Your task to perform on an android device: clear history in the chrome app Image 0: 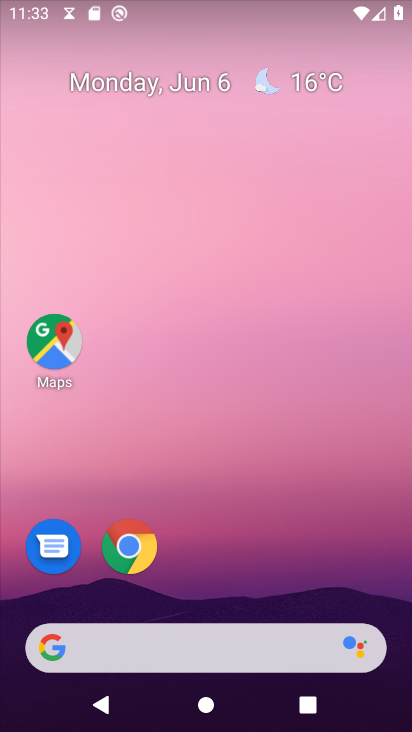
Step 0: drag from (207, 584) to (249, 50)
Your task to perform on an android device: clear history in the chrome app Image 1: 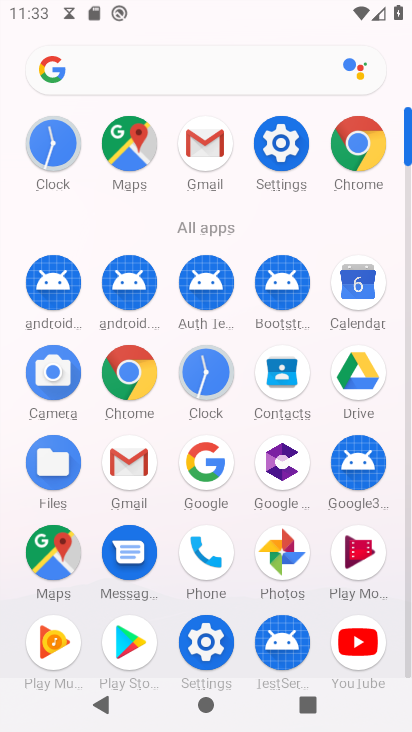
Step 1: click (138, 393)
Your task to perform on an android device: clear history in the chrome app Image 2: 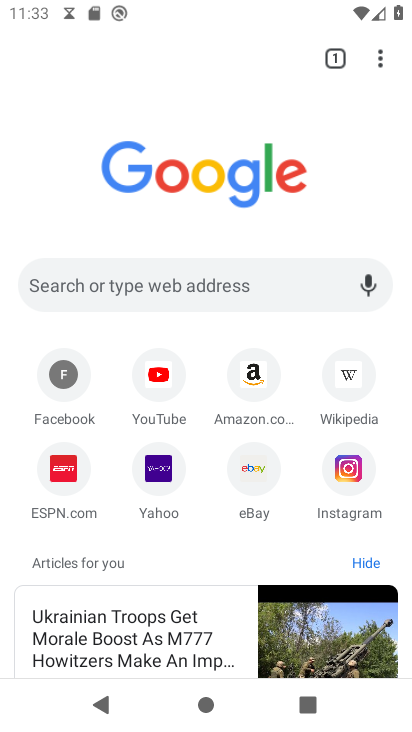
Step 2: click (378, 63)
Your task to perform on an android device: clear history in the chrome app Image 3: 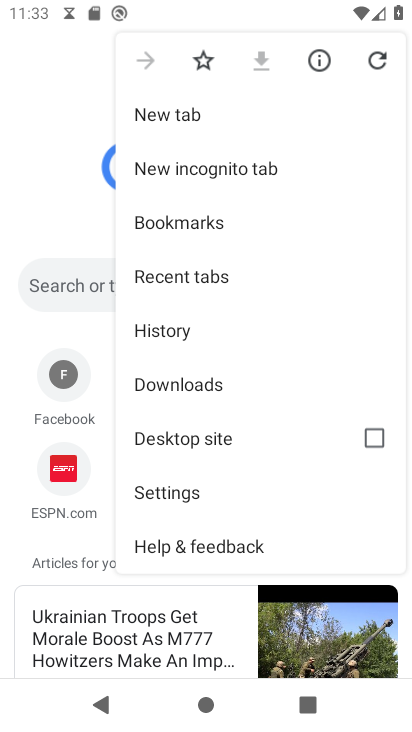
Step 3: click (175, 338)
Your task to perform on an android device: clear history in the chrome app Image 4: 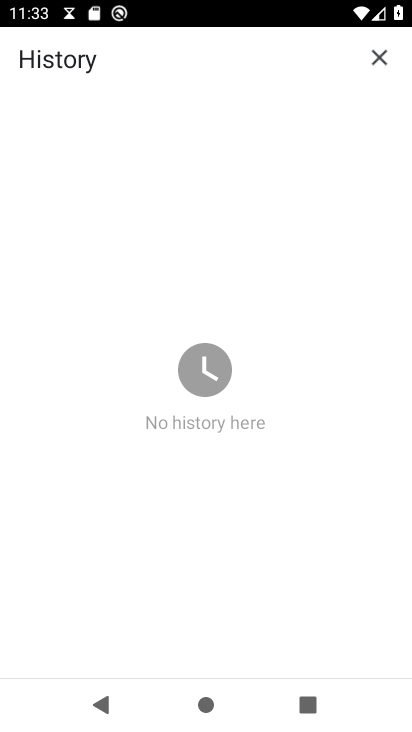
Step 4: task complete